Your task to perform on an android device: What's the weather? Image 0: 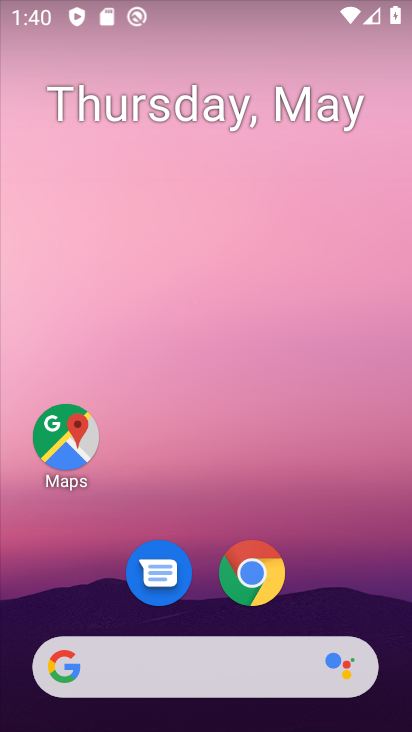
Step 0: click (127, 676)
Your task to perform on an android device: What's the weather? Image 1: 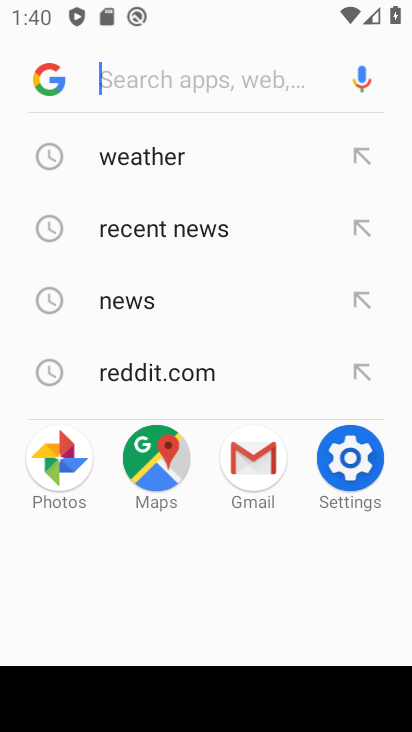
Step 1: click (141, 163)
Your task to perform on an android device: What's the weather? Image 2: 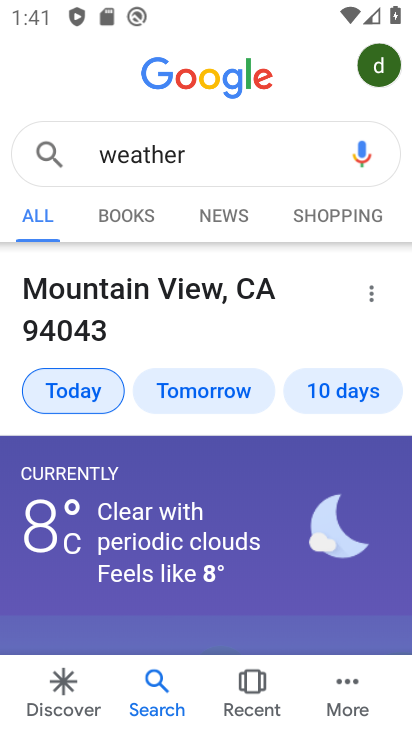
Step 2: task complete